Your task to perform on an android device: search for starred emails in the gmail app Image 0: 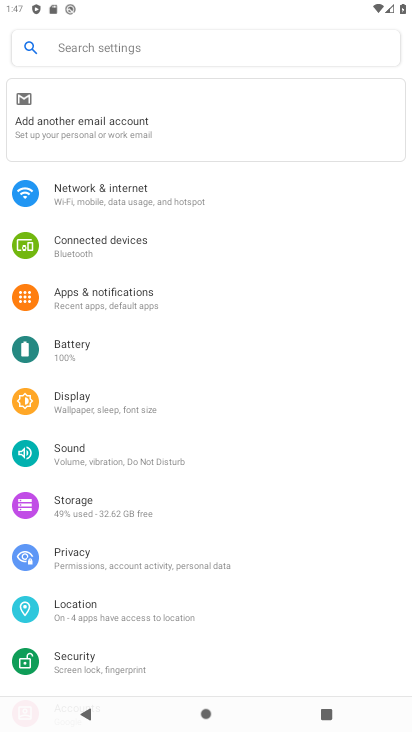
Step 0: press home button
Your task to perform on an android device: search for starred emails in the gmail app Image 1: 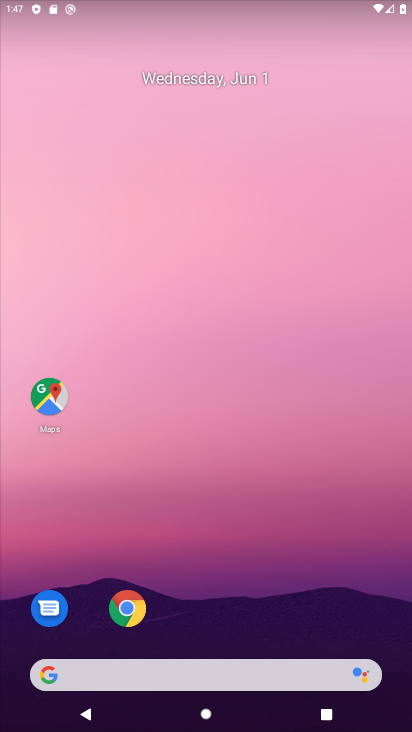
Step 1: drag from (374, 631) to (270, 96)
Your task to perform on an android device: search for starred emails in the gmail app Image 2: 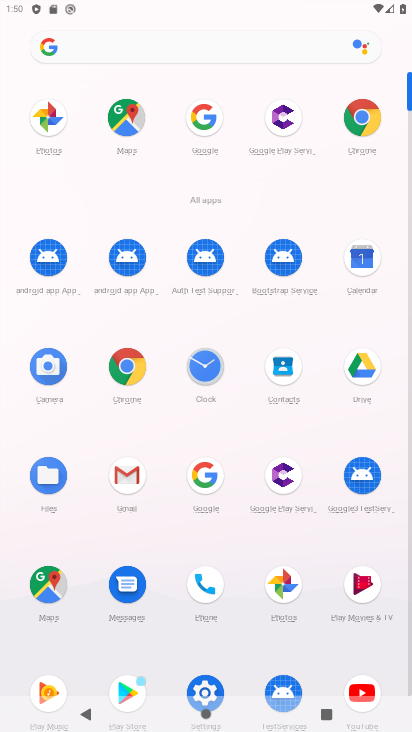
Step 2: click (119, 481)
Your task to perform on an android device: search for starred emails in the gmail app Image 3: 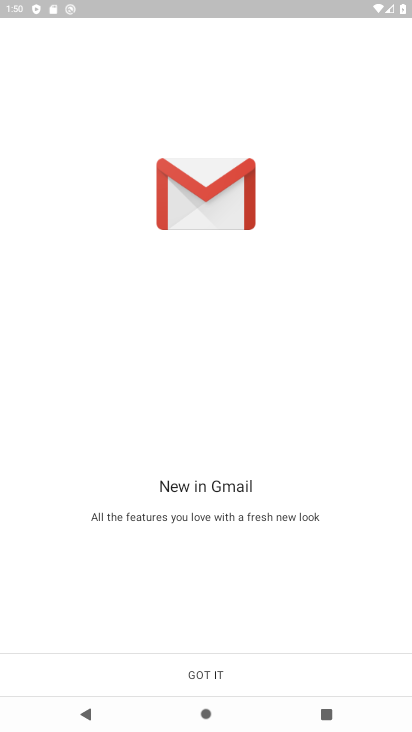
Step 3: click (225, 674)
Your task to perform on an android device: search for starred emails in the gmail app Image 4: 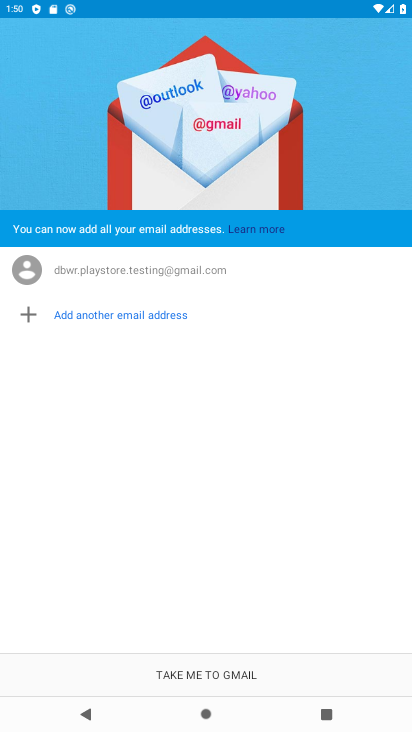
Step 4: click (225, 674)
Your task to perform on an android device: search for starred emails in the gmail app Image 5: 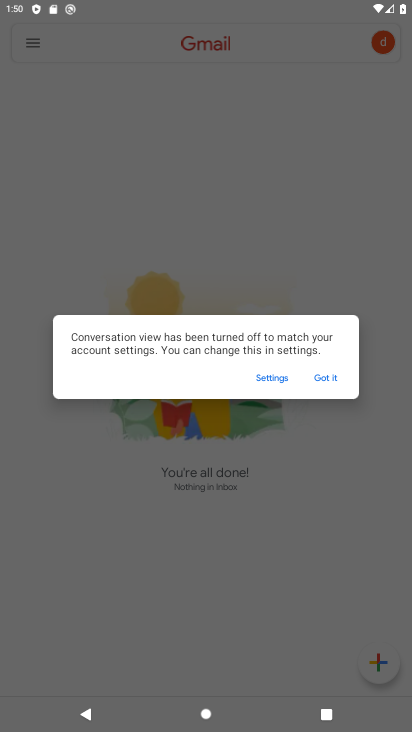
Step 5: click (325, 371)
Your task to perform on an android device: search for starred emails in the gmail app Image 6: 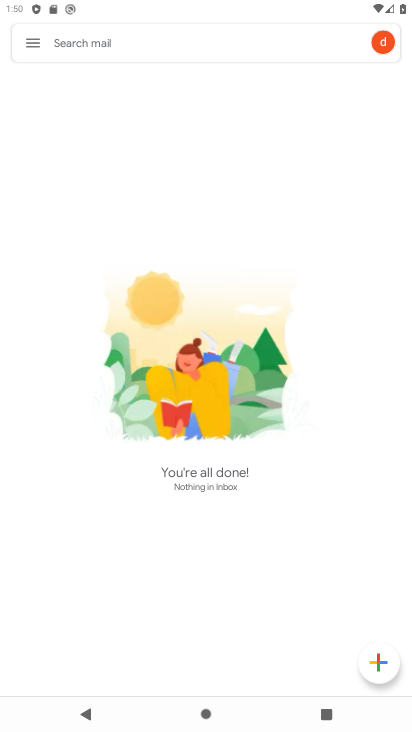
Step 6: click (35, 47)
Your task to perform on an android device: search for starred emails in the gmail app Image 7: 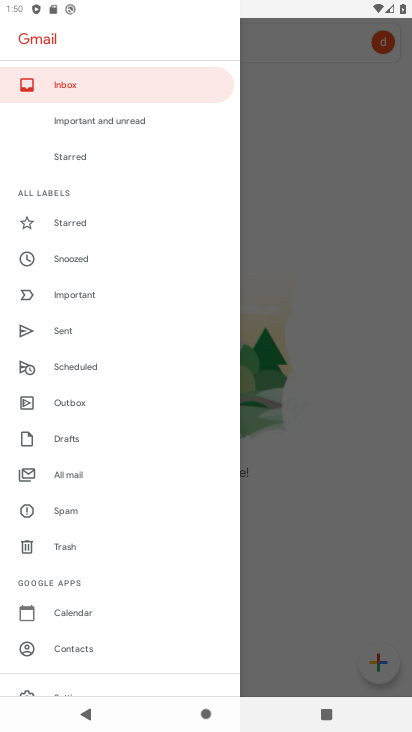
Step 7: click (79, 218)
Your task to perform on an android device: search for starred emails in the gmail app Image 8: 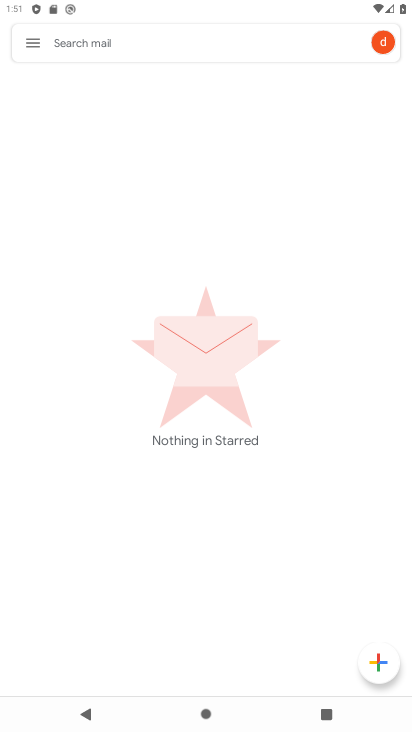
Step 8: task complete